Your task to perform on an android device: add a contact Image 0: 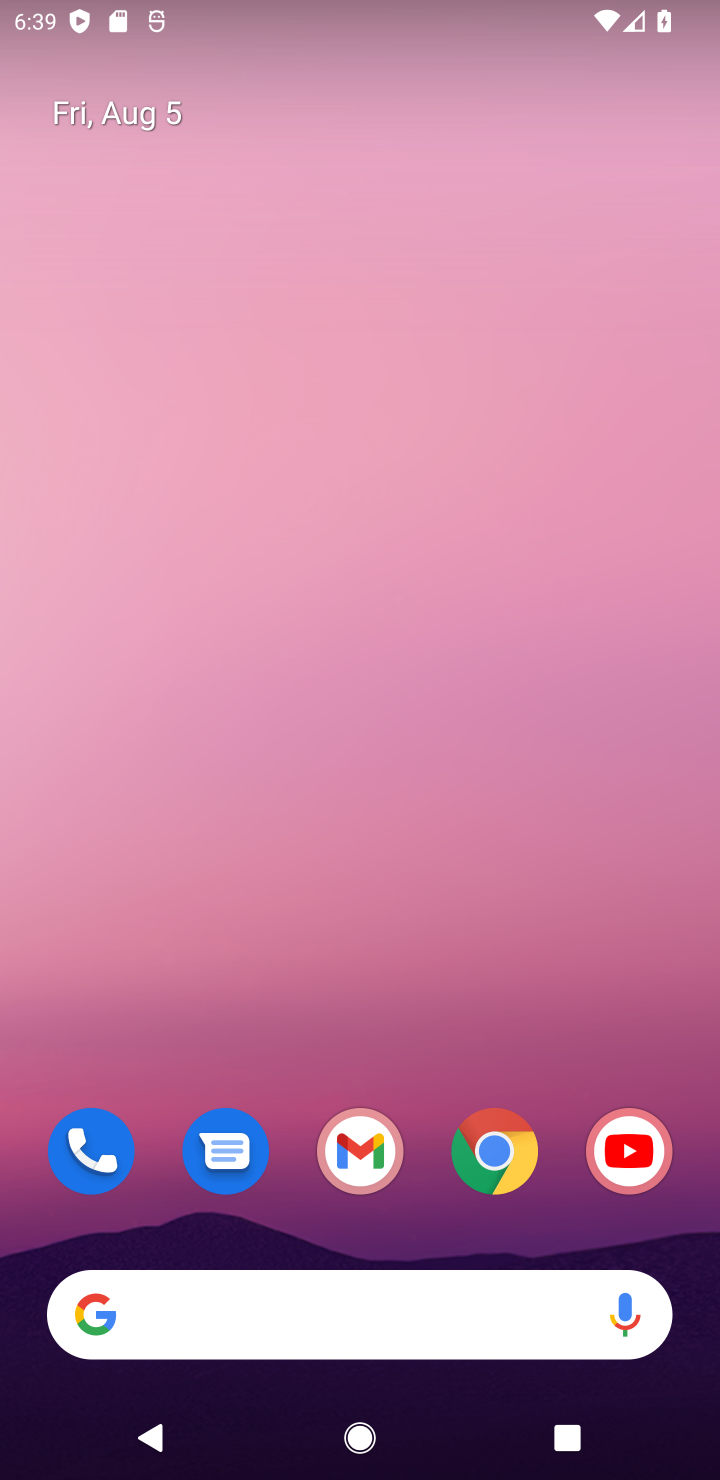
Step 0: click (559, 934)
Your task to perform on an android device: add a contact Image 1: 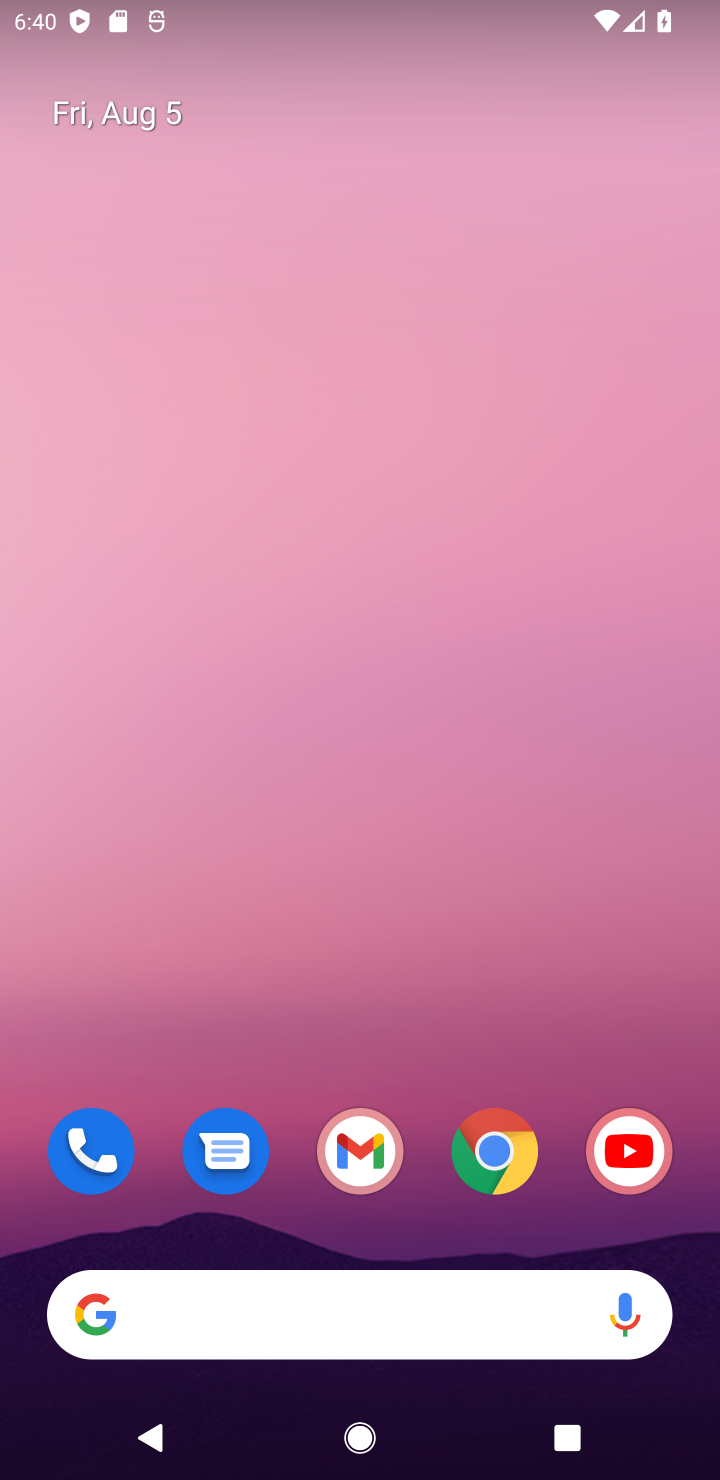
Step 1: drag from (363, 1033) to (233, 422)
Your task to perform on an android device: add a contact Image 2: 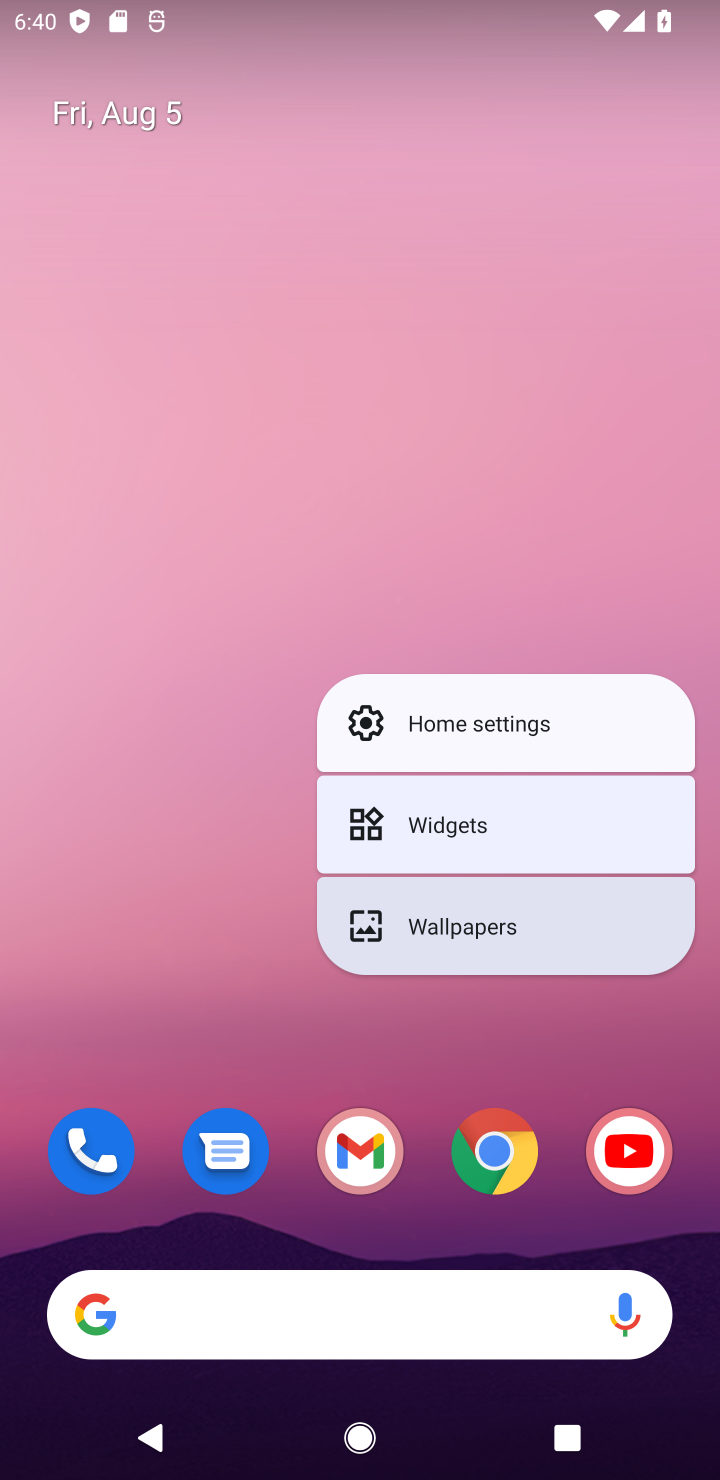
Step 2: drag from (455, 1089) to (442, 299)
Your task to perform on an android device: add a contact Image 3: 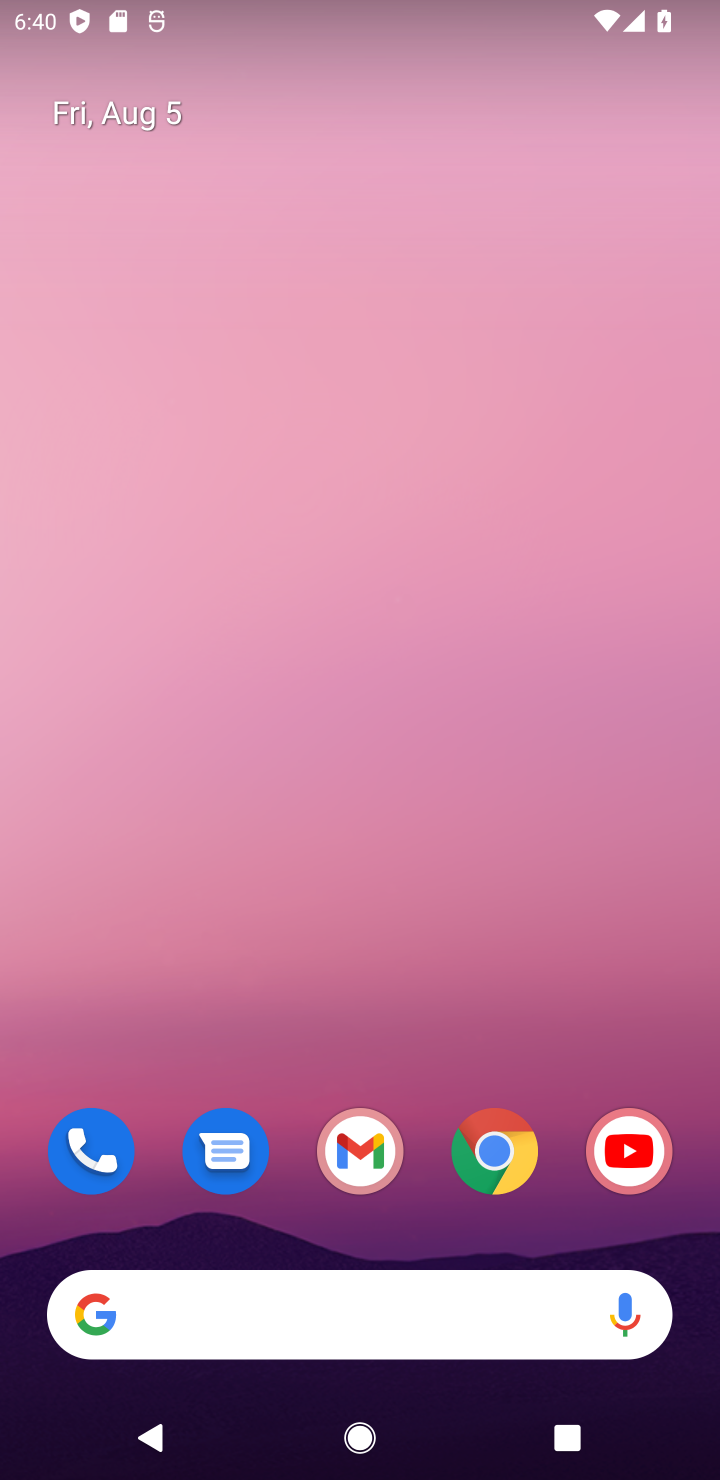
Step 3: drag from (425, 1220) to (371, 307)
Your task to perform on an android device: add a contact Image 4: 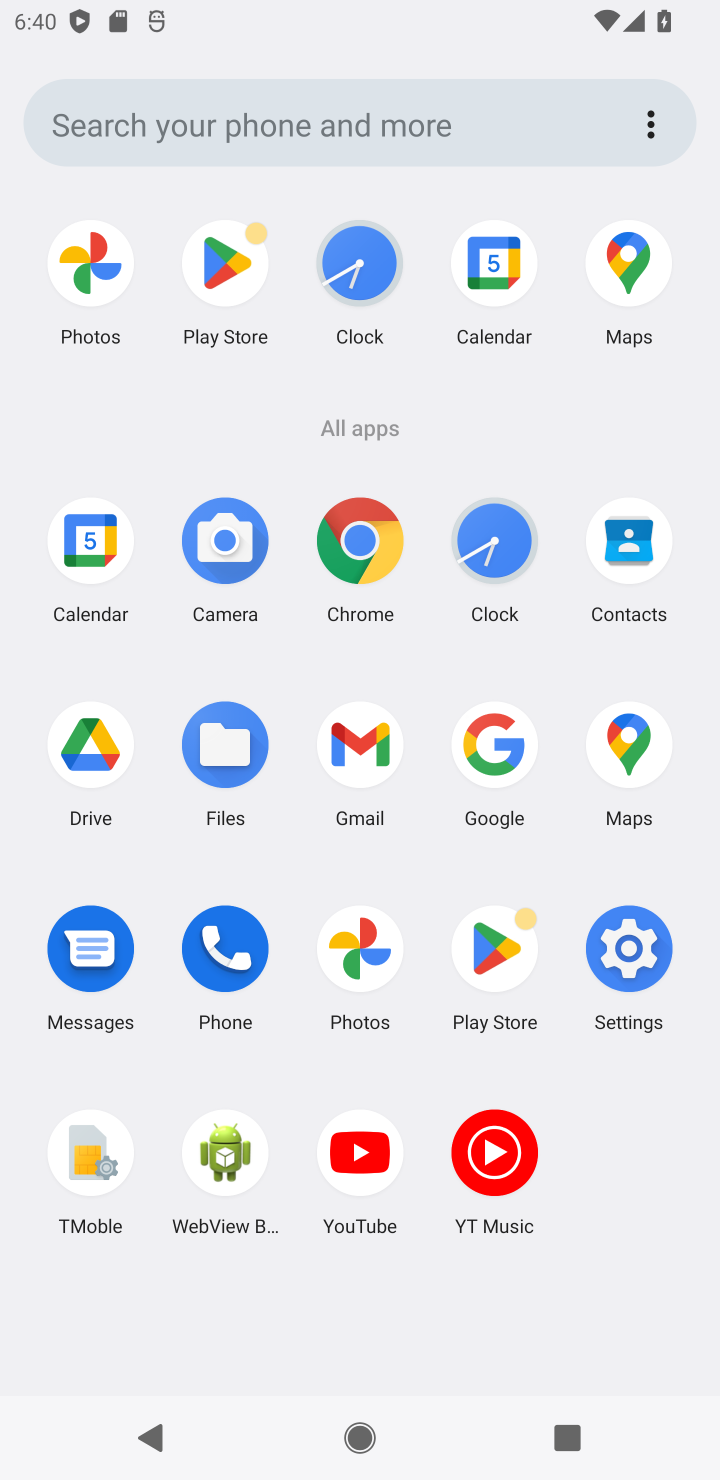
Step 4: click (645, 549)
Your task to perform on an android device: add a contact Image 5: 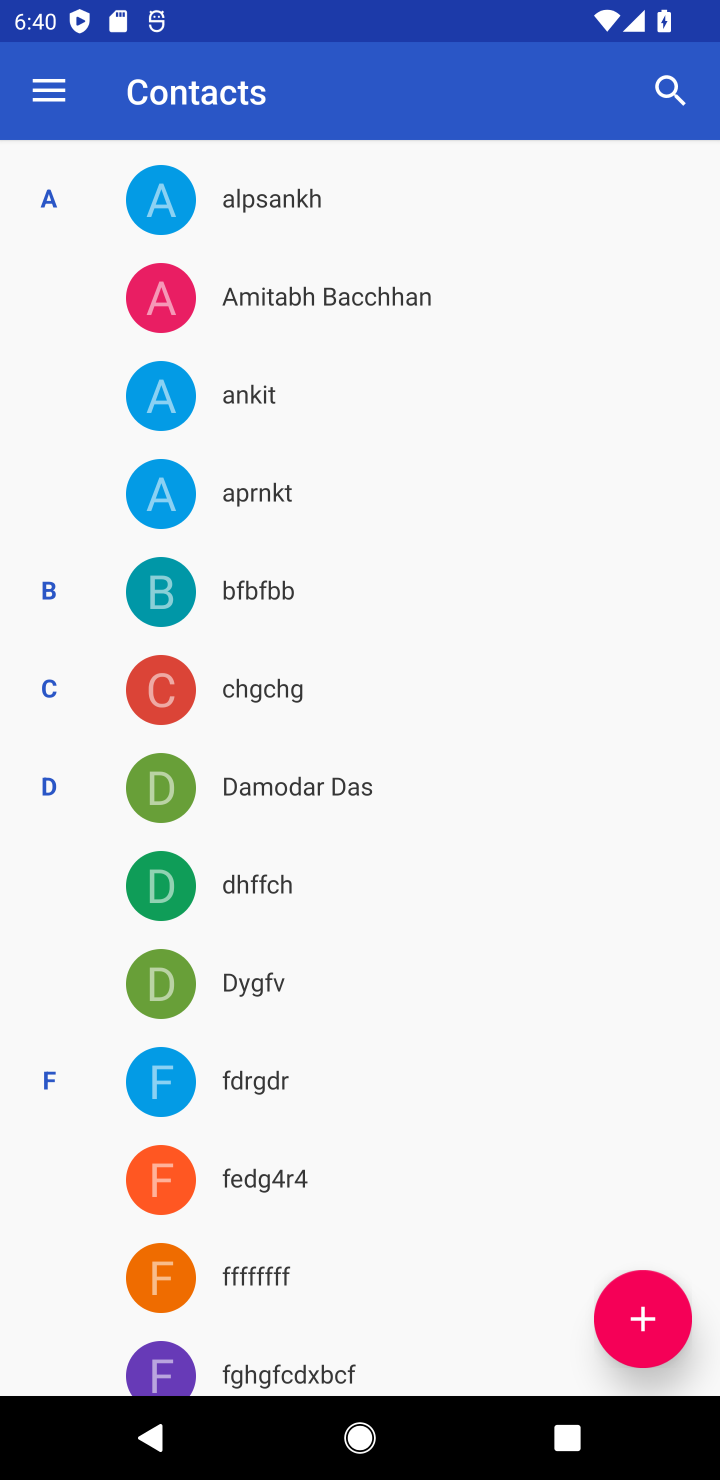
Step 5: click (647, 1319)
Your task to perform on an android device: add a contact Image 6: 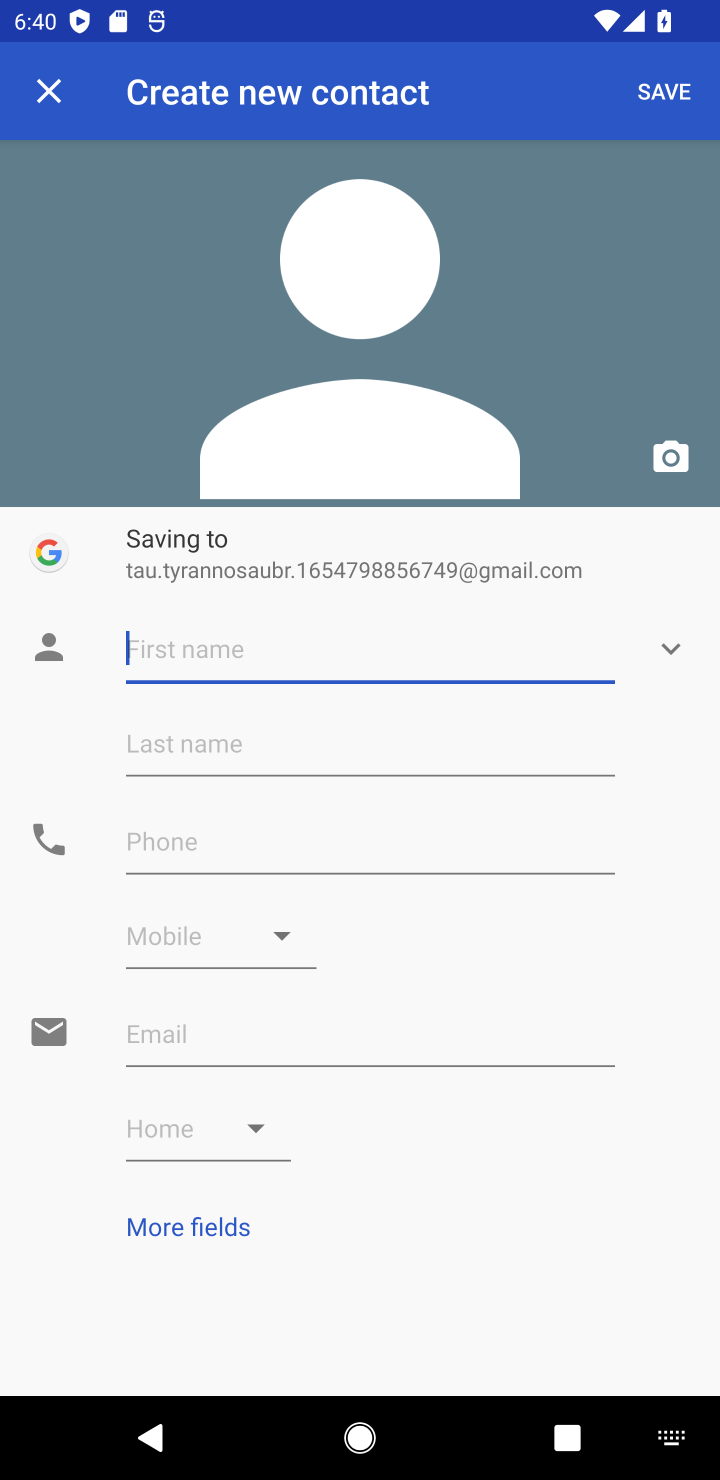
Step 6: type "op"
Your task to perform on an android device: add a contact Image 7: 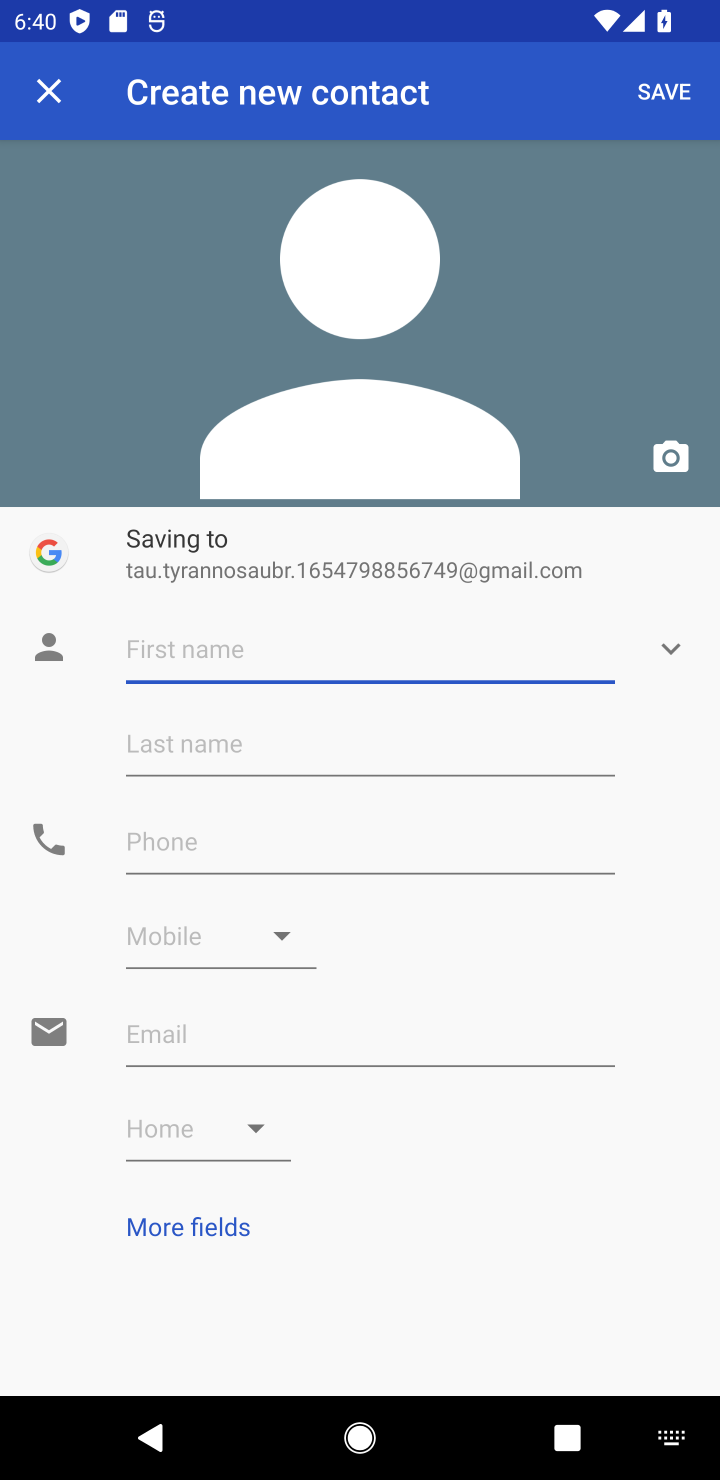
Step 7: click (258, 841)
Your task to perform on an android device: add a contact Image 8: 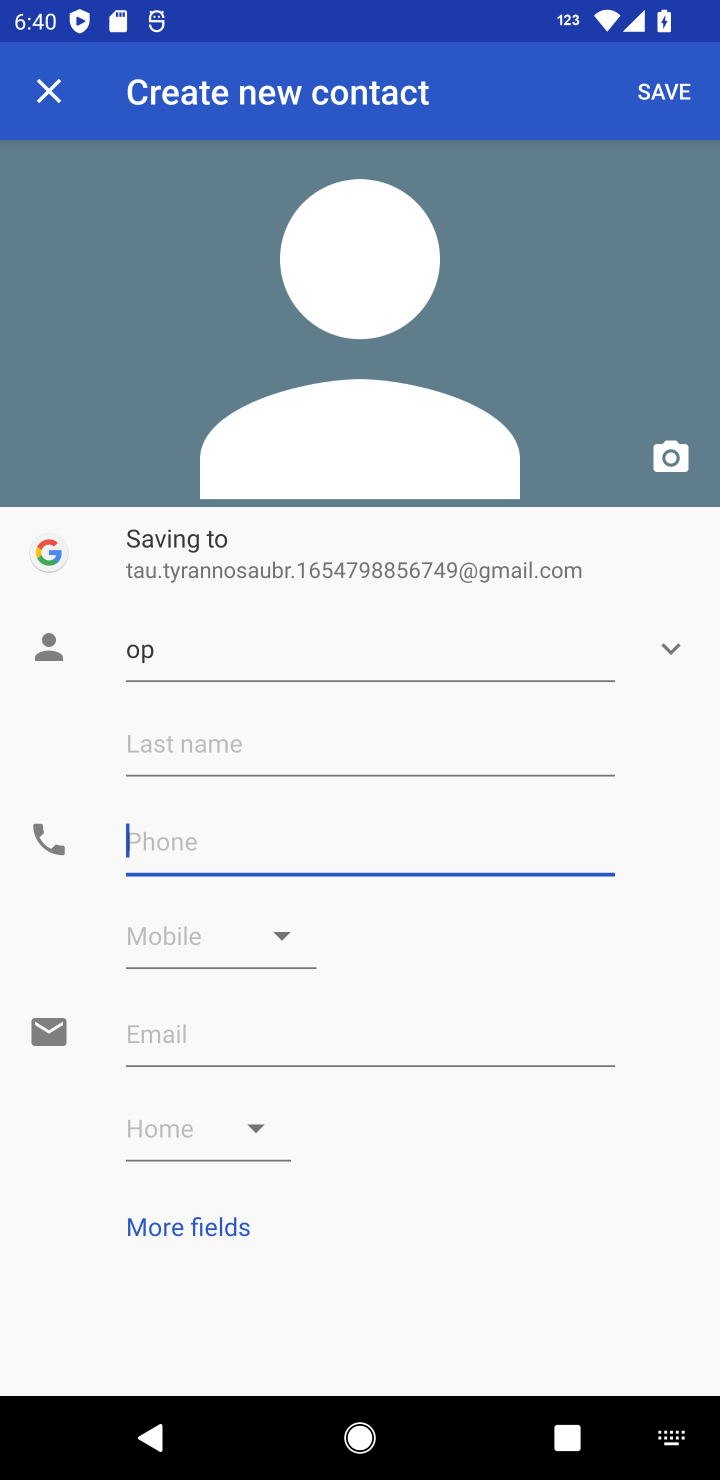
Step 8: type "9009000000"
Your task to perform on an android device: add a contact Image 9: 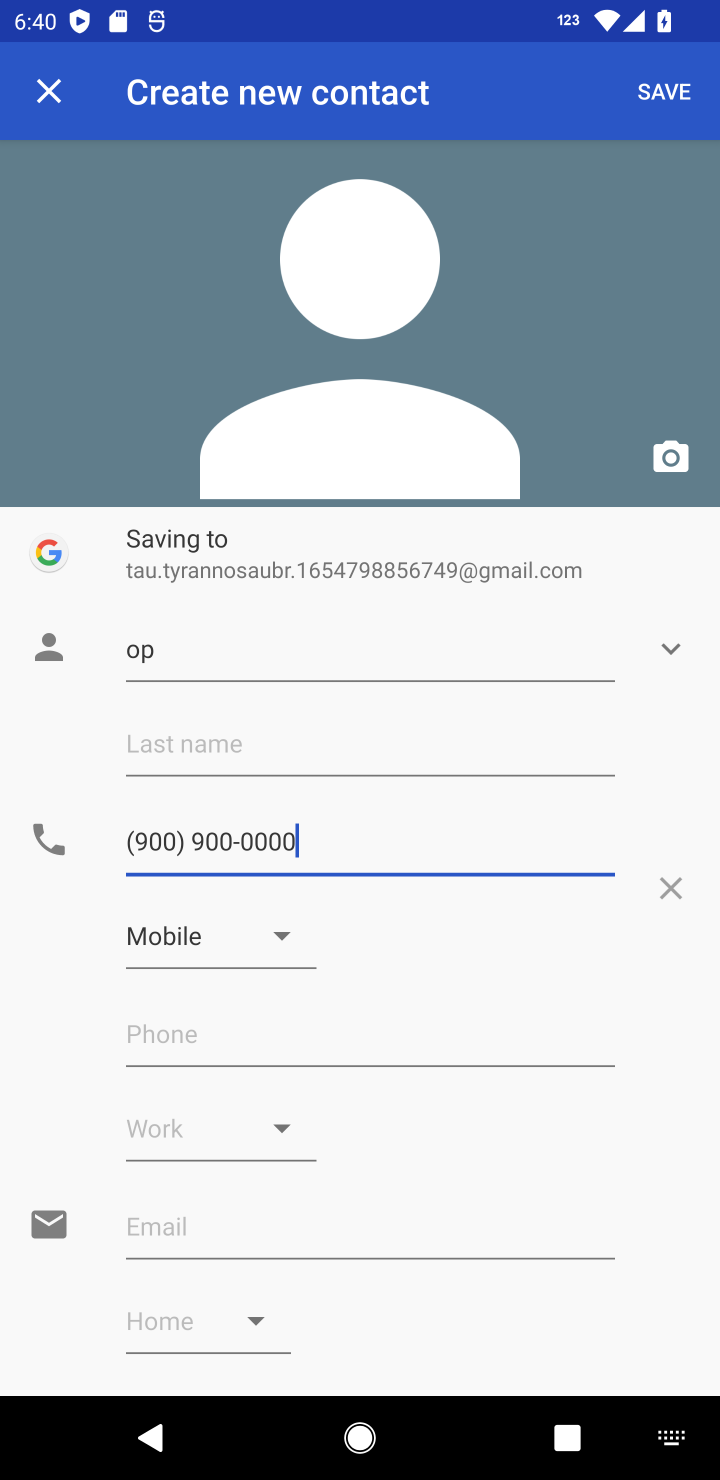
Step 9: click (664, 85)
Your task to perform on an android device: add a contact Image 10: 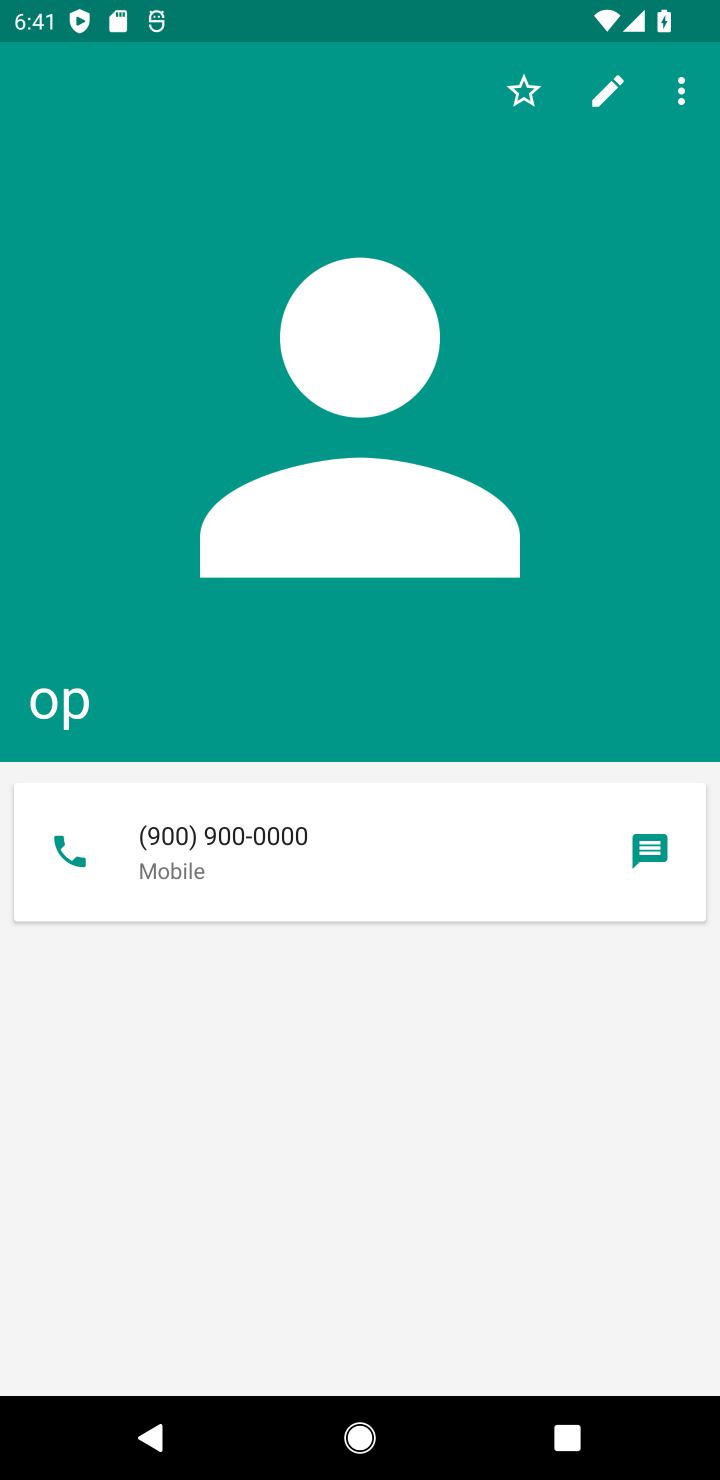
Step 10: task complete